Your task to perform on an android device: open the mobile data screen to see how much data has been used Image 0: 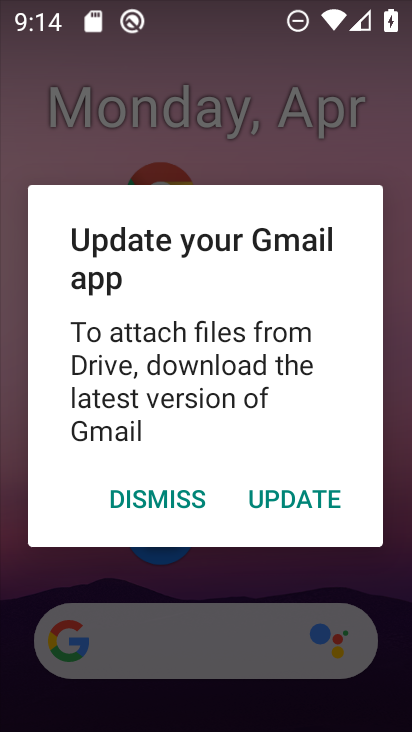
Step 0: press back button
Your task to perform on an android device: open the mobile data screen to see how much data has been used Image 1: 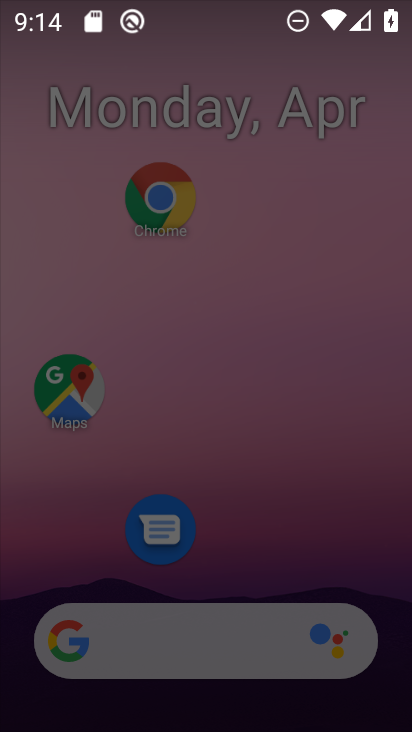
Step 1: click (265, 339)
Your task to perform on an android device: open the mobile data screen to see how much data has been used Image 2: 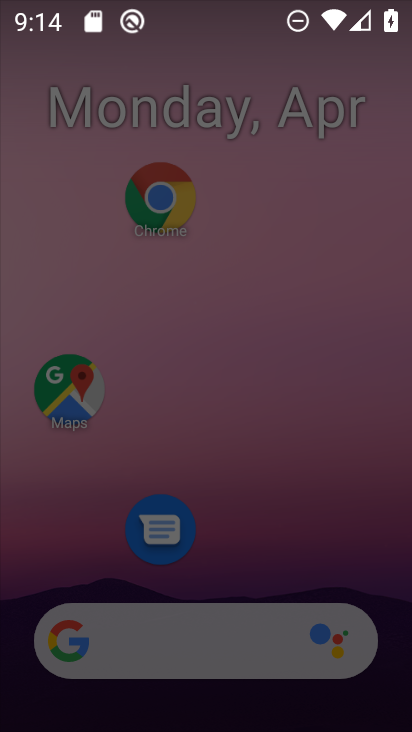
Step 2: press back button
Your task to perform on an android device: open the mobile data screen to see how much data has been used Image 3: 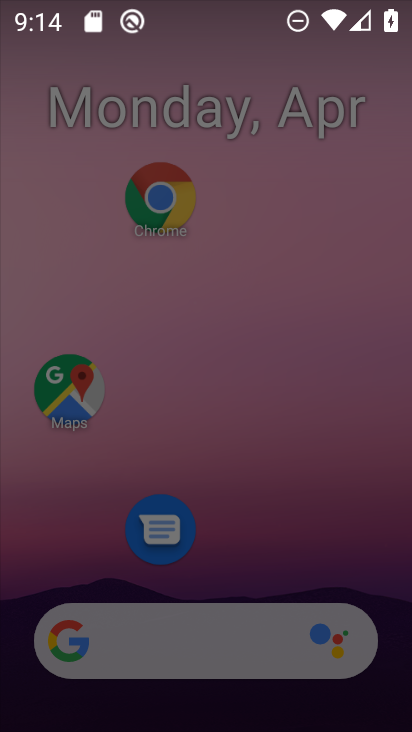
Step 3: click (219, 319)
Your task to perform on an android device: open the mobile data screen to see how much data has been used Image 4: 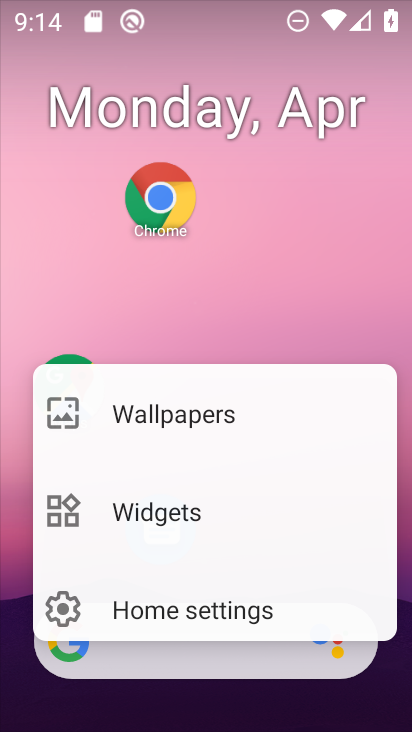
Step 4: press back button
Your task to perform on an android device: open the mobile data screen to see how much data has been used Image 5: 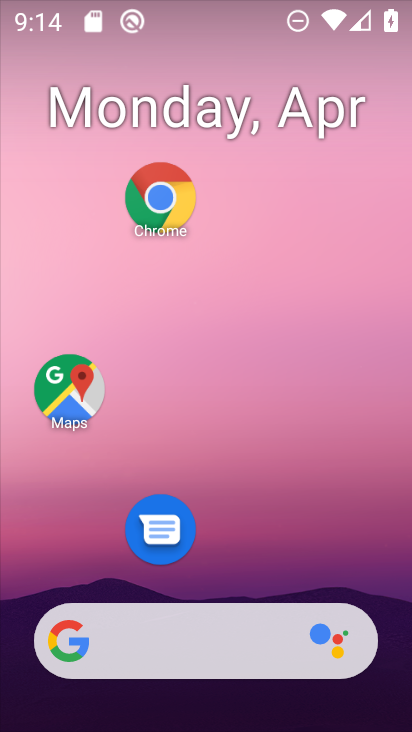
Step 5: drag from (251, 558) to (339, 102)
Your task to perform on an android device: open the mobile data screen to see how much data has been used Image 6: 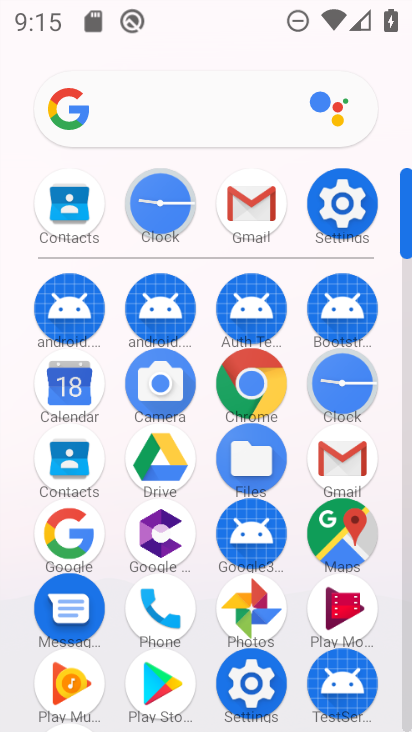
Step 6: click (343, 197)
Your task to perform on an android device: open the mobile data screen to see how much data has been used Image 7: 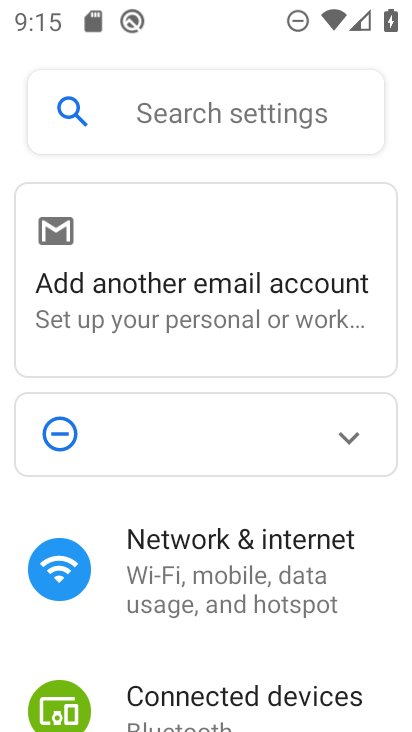
Step 7: drag from (202, 630) to (292, 214)
Your task to perform on an android device: open the mobile data screen to see how much data has been used Image 8: 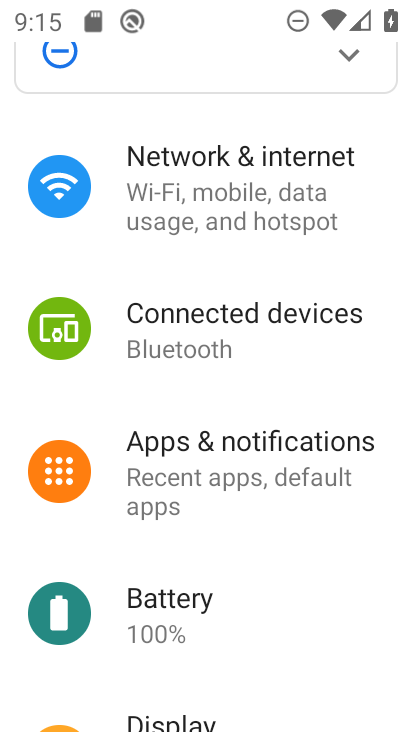
Step 8: click (252, 218)
Your task to perform on an android device: open the mobile data screen to see how much data has been used Image 9: 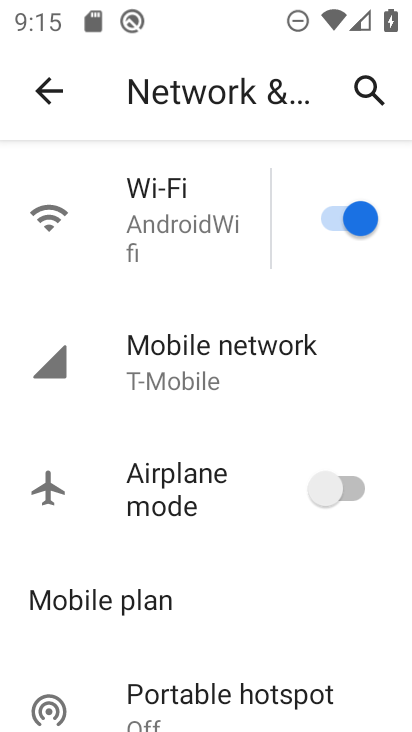
Step 9: drag from (182, 565) to (264, 83)
Your task to perform on an android device: open the mobile data screen to see how much data has been used Image 10: 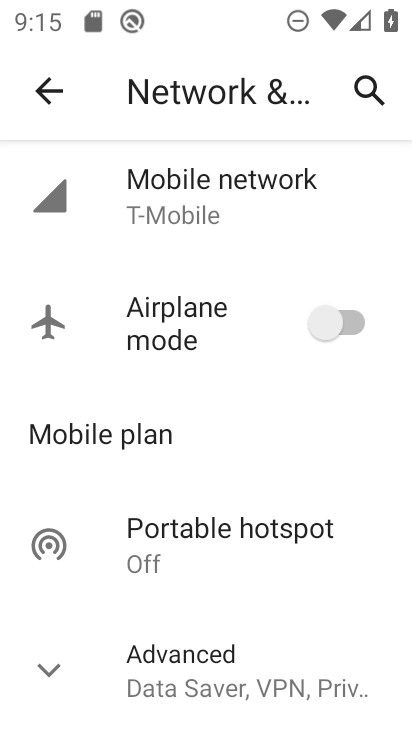
Step 10: drag from (191, 629) to (276, 163)
Your task to perform on an android device: open the mobile data screen to see how much data has been used Image 11: 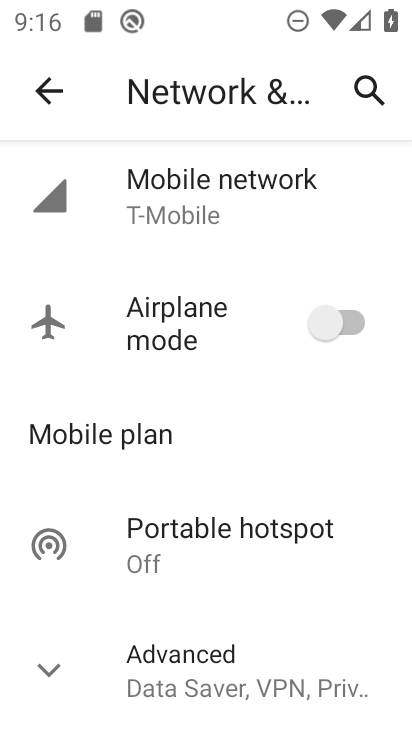
Step 11: click (195, 193)
Your task to perform on an android device: open the mobile data screen to see how much data has been used Image 12: 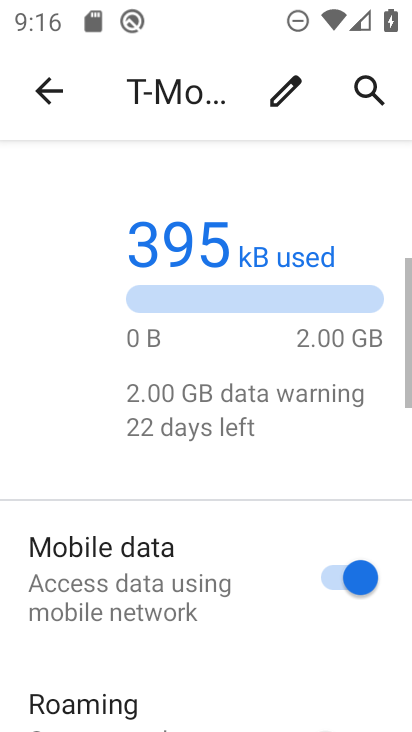
Step 12: drag from (178, 632) to (260, 159)
Your task to perform on an android device: open the mobile data screen to see how much data has been used Image 13: 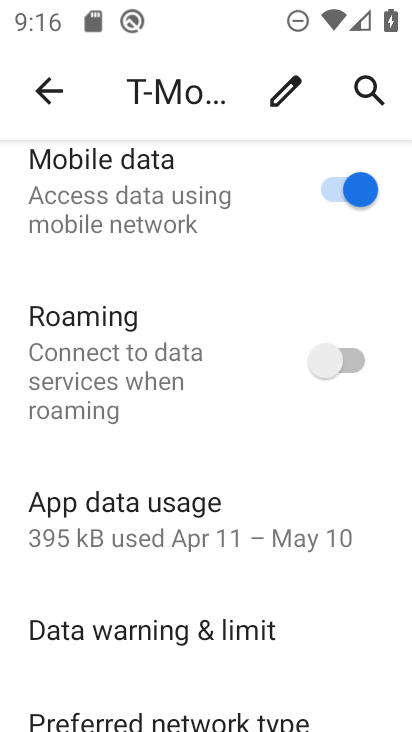
Step 13: click (156, 525)
Your task to perform on an android device: open the mobile data screen to see how much data has been used Image 14: 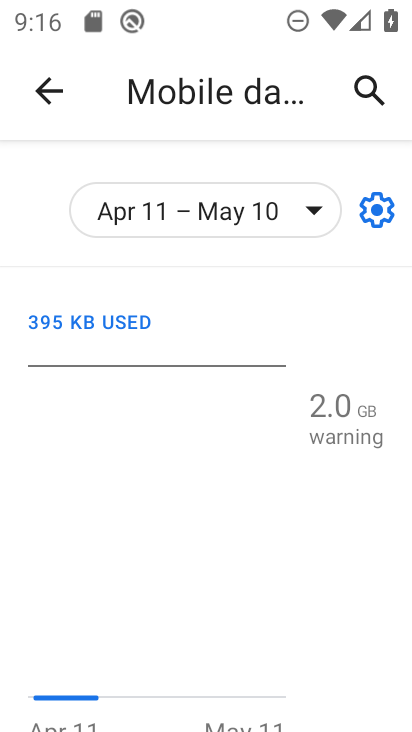
Step 14: task complete